Your task to perform on an android device: uninstall "Truecaller" Image 0: 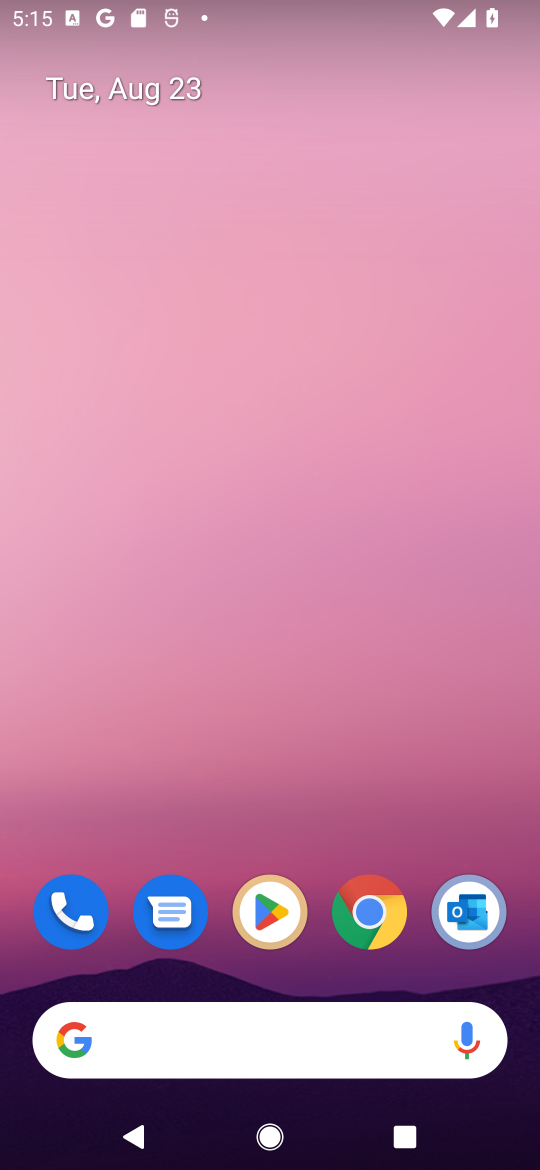
Step 0: drag from (365, 989) to (341, 524)
Your task to perform on an android device: uninstall "Truecaller" Image 1: 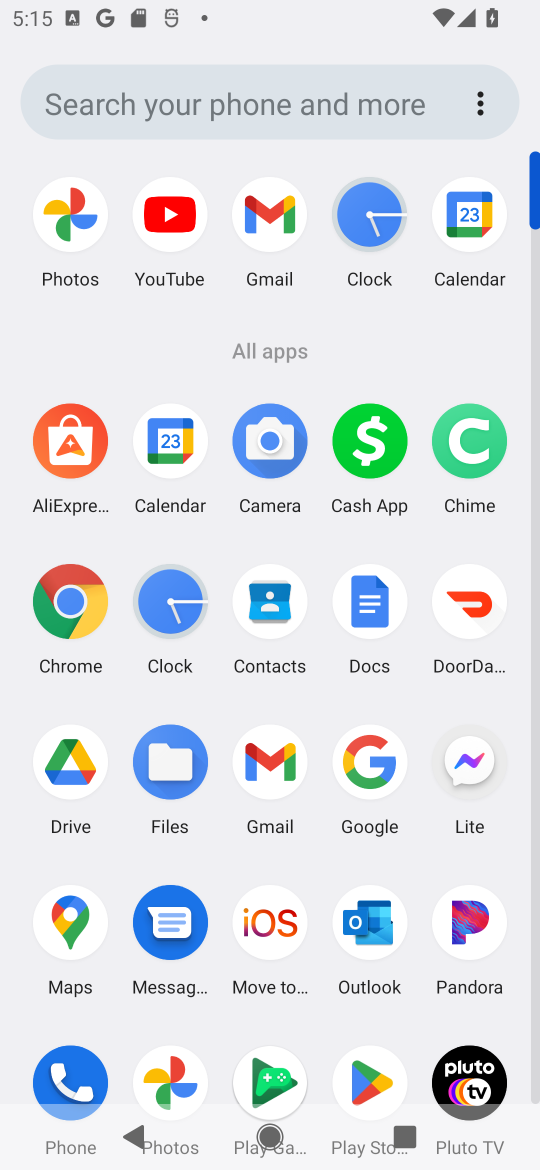
Step 1: click (388, 1073)
Your task to perform on an android device: uninstall "Truecaller" Image 2: 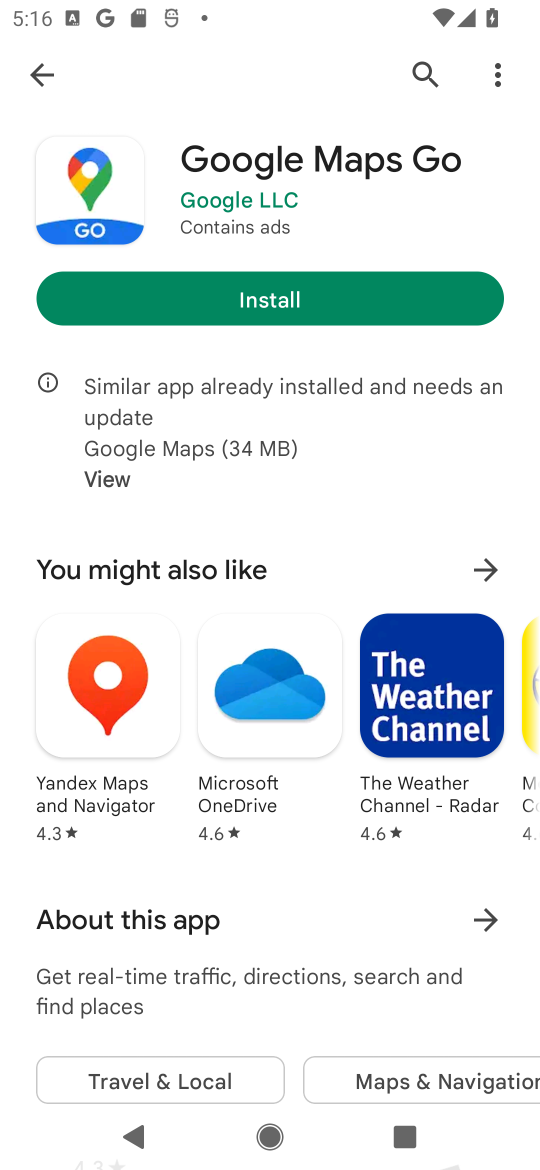
Step 2: click (46, 68)
Your task to perform on an android device: uninstall "Truecaller" Image 3: 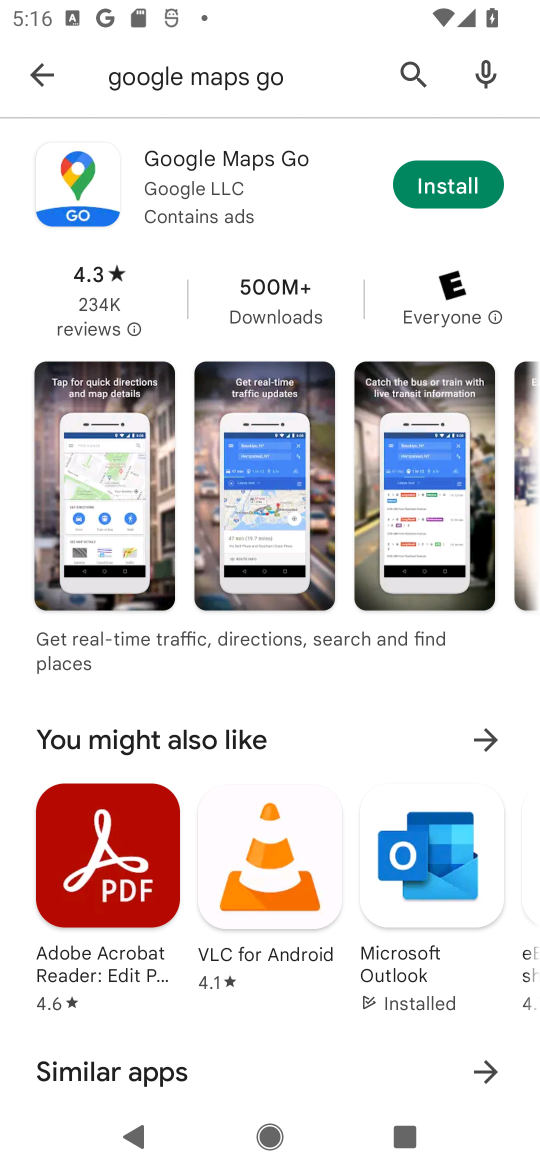
Step 3: click (407, 76)
Your task to perform on an android device: uninstall "Truecaller" Image 4: 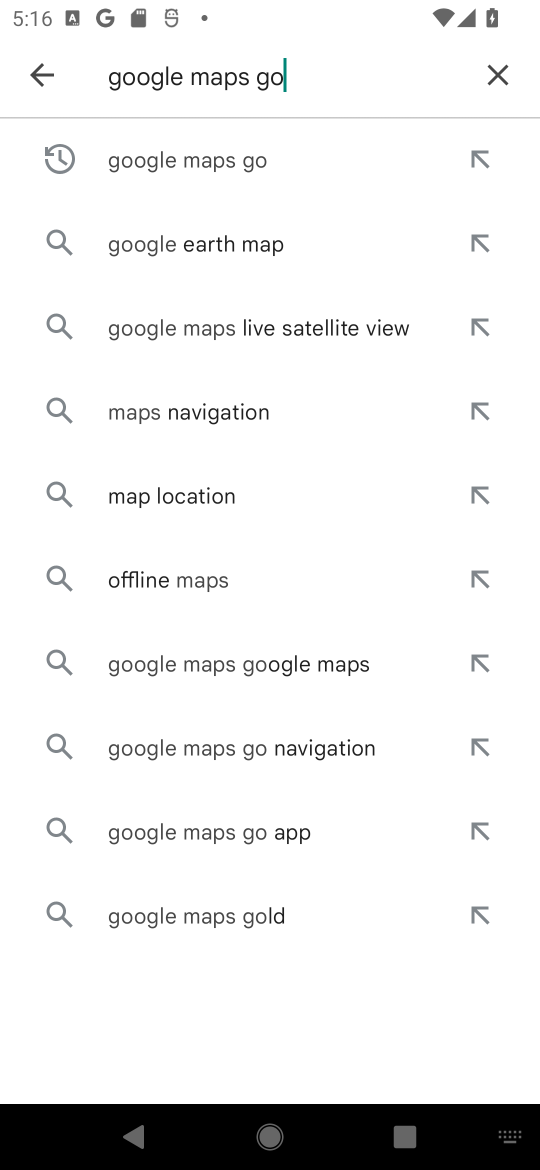
Step 4: click (494, 72)
Your task to perform on an android device: uninstall "Truecaller" Image 5: 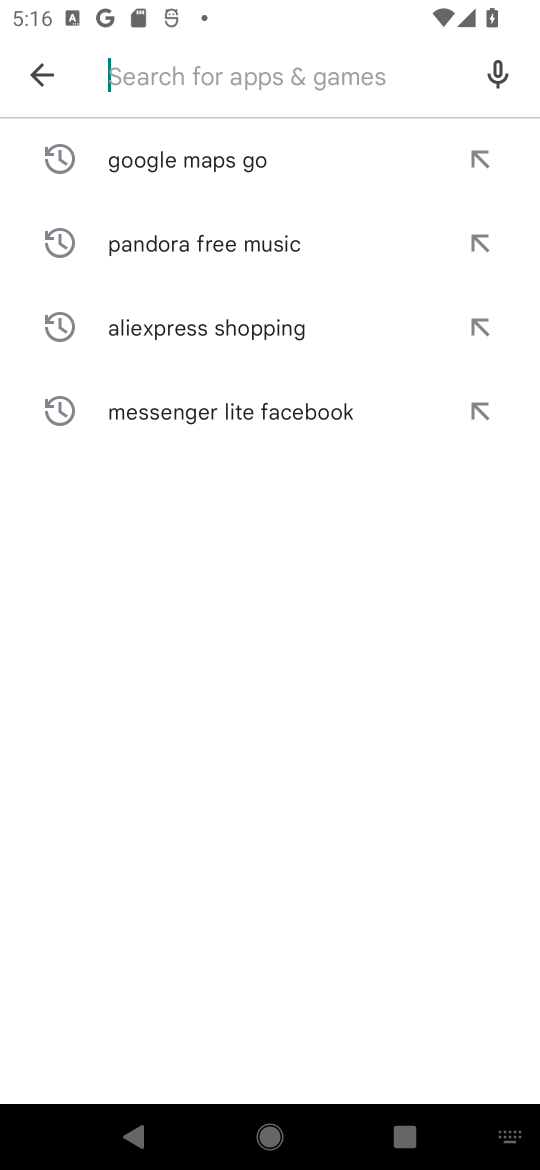
Step 5: click (261, 75)
Your task to perform on an android device: uninstall "Truecaller" Image 6: 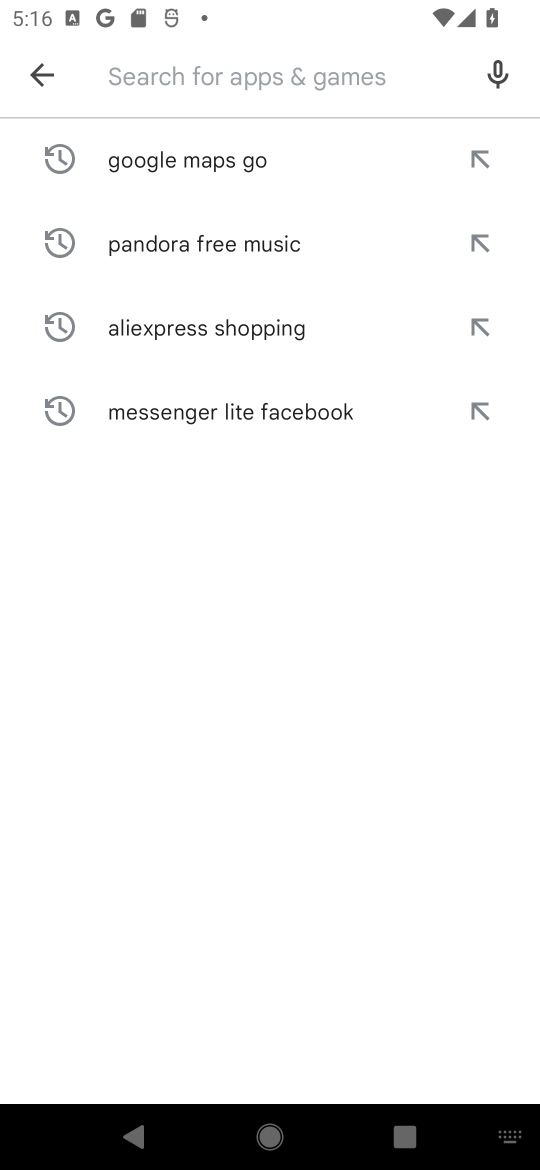
Step 6: type "truecaller "
Your task to perform on an android device: uninstall "Truecaller" Image 7: 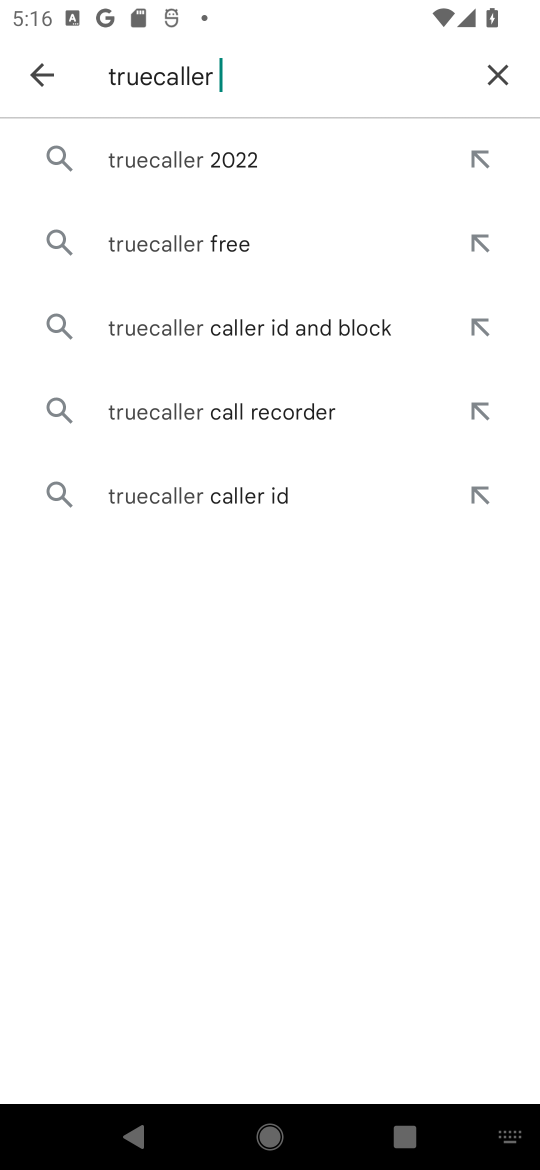
Step 7: click (225, 251)
Your task to perform on an android device: uninstall "Truecaller" Image 8: 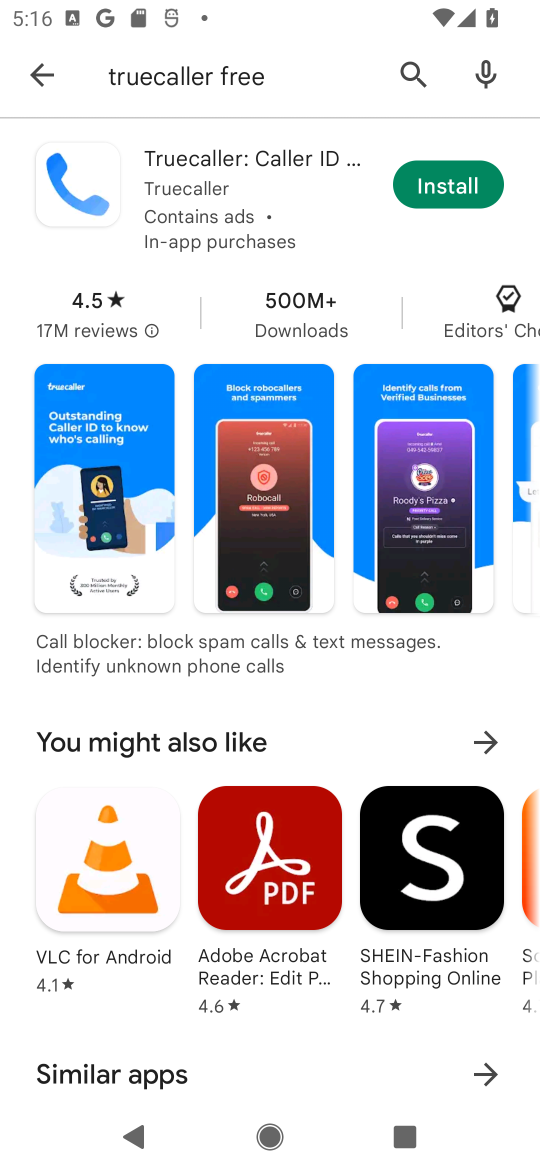
Step 8: click (427, 190)
Your task to perform on an android device: uninstall "Truecaller" Image 9: 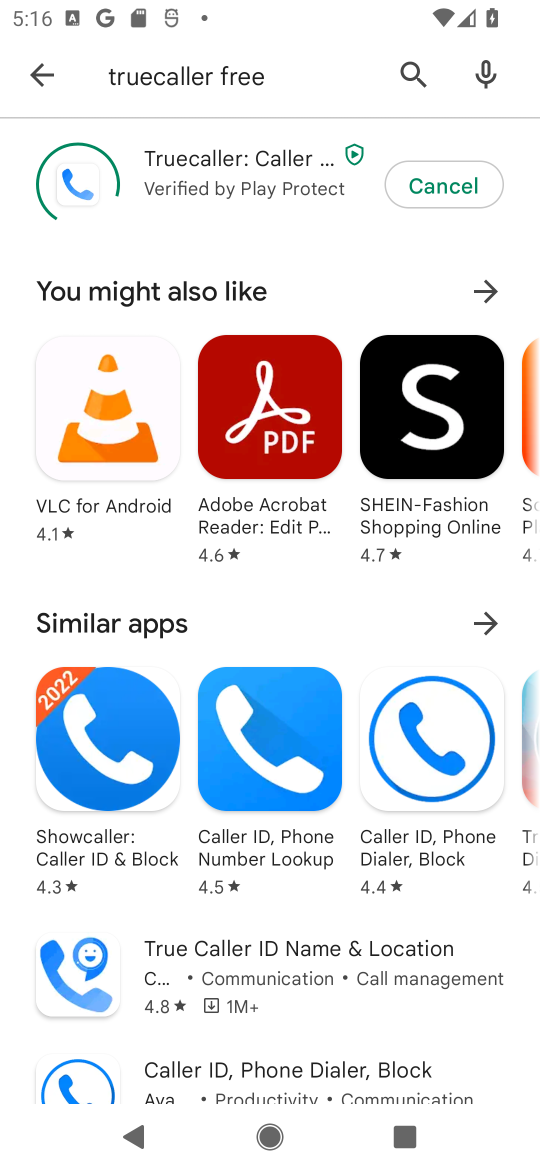
Step 9: click (431, 187)
Your task to perform on an android device: uninstall "Truecaller" Image 10: 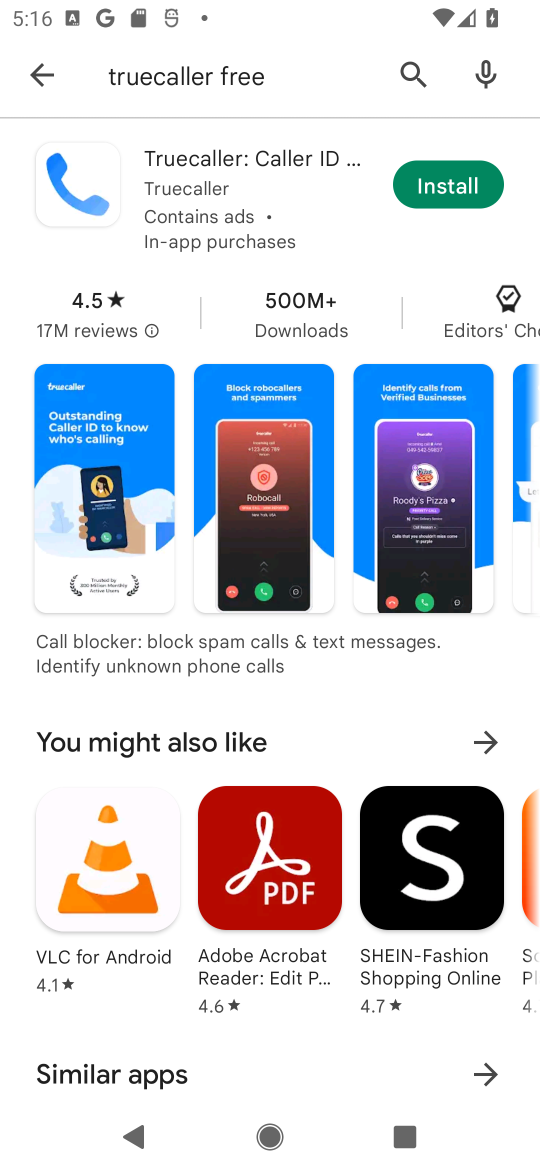
Step 10: click (252, 165)
Your task to perform on an android device: uninstall "Truecaller" Image 11: 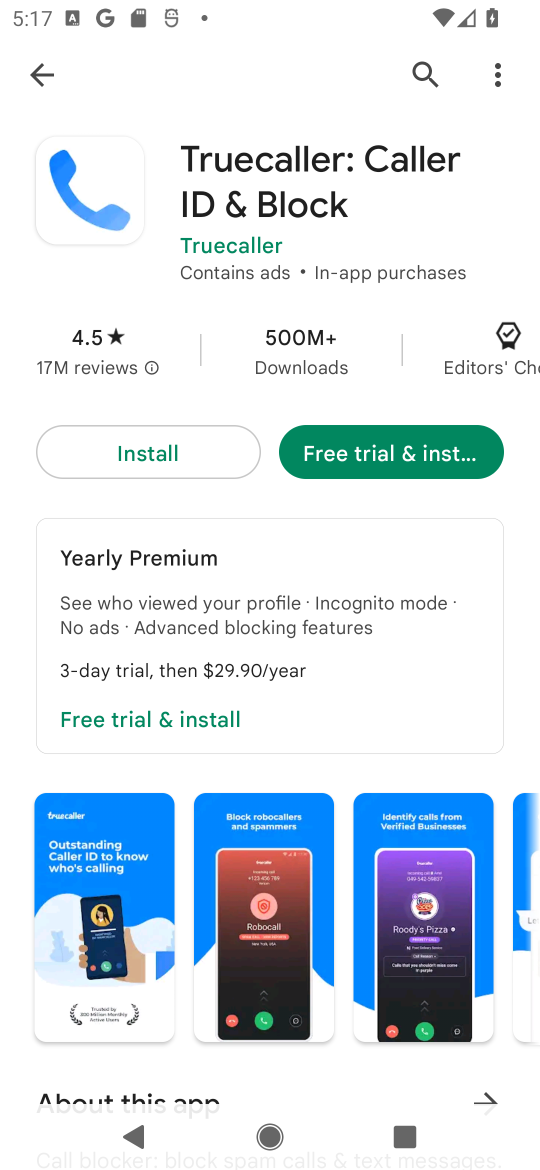
Step 11: task complete